Your task to perform on an android device: move a message to another label in the gmail app Image 0: 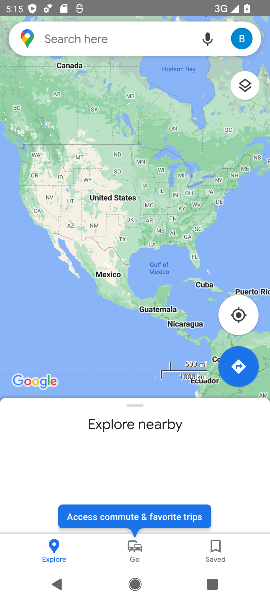
Step 0: press home button
Your task to perform on an android device: move a message to another label in the gmail app Image 1: 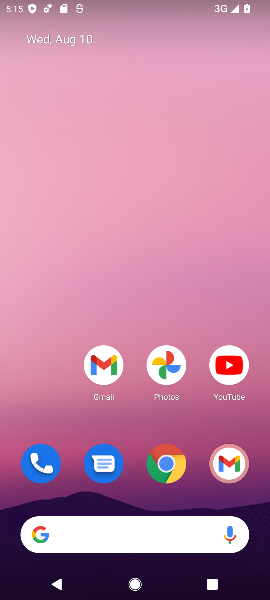
Step 1: click (102, 366)
Your task to perform on an android device: move a message to another label in the gmail app Image 2: 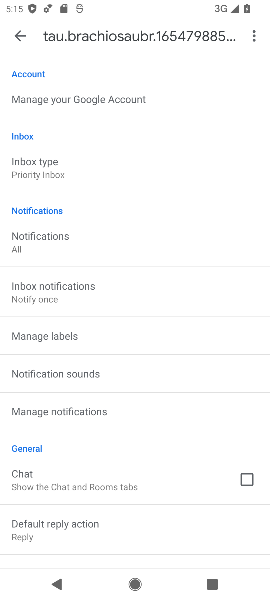
Step 2: click (17, 32)
Your task to perform on an android device: move a message to another label in the gmail app Image 3: 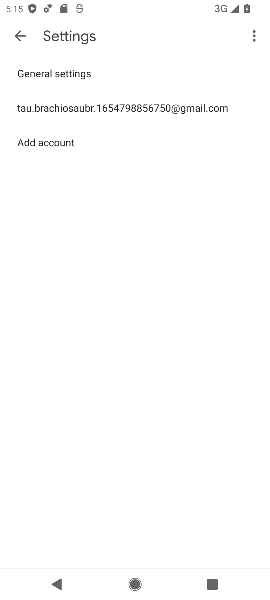
Step 3: click (17, 32)
Your task to perform on an android device: move a message to another label in the gmail app Image 4: 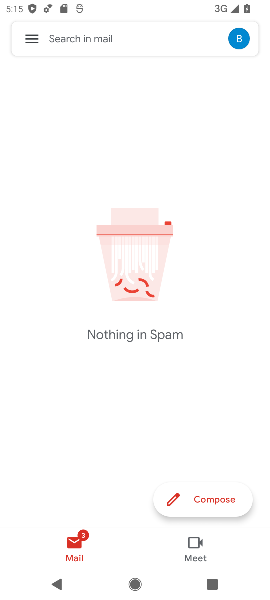
Step 4: click (26, 25)
Your task to perform on an android device: move a message to another label in the gmail app Image 5: 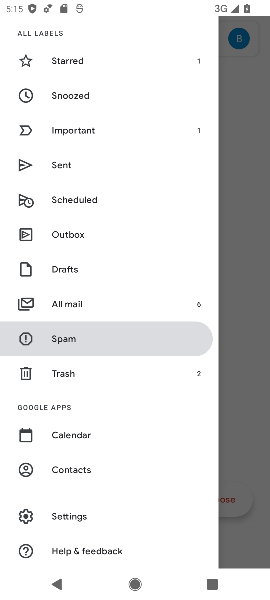
Step 5: click (69, 302)
Your task to perform on an android device: move a message to another label in the gmail app Image 6: 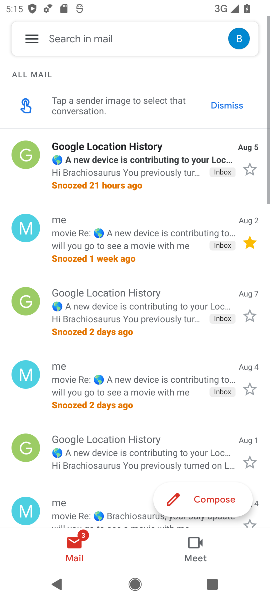
Step 6: click (133, 154)
Your task to perform on an android device: move a message to another label in the gmail app Image 7: 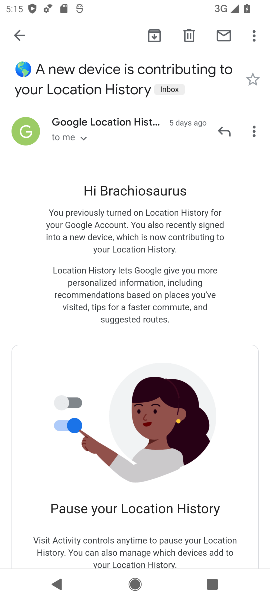
Step 7: click (255, 28)
Your task to perform on an android device: move a message to another label in the gmail app Image 8: 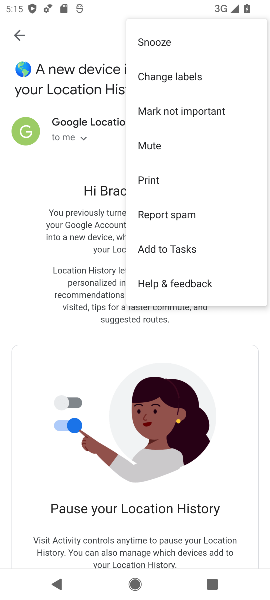
Step 8: click (191, 70)
Your task to perform on an android device: move a message to another label in the gmail app Image 9: 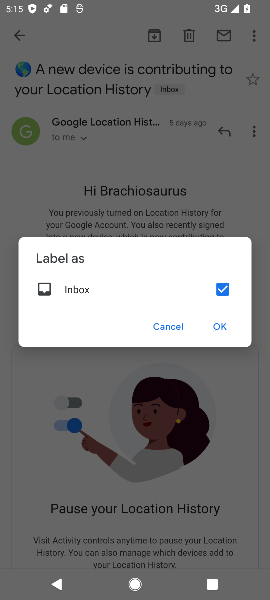
Step 9: click (220, 326)
Your task to perform on an android device: move a message to another label in the gmail app Image 10: 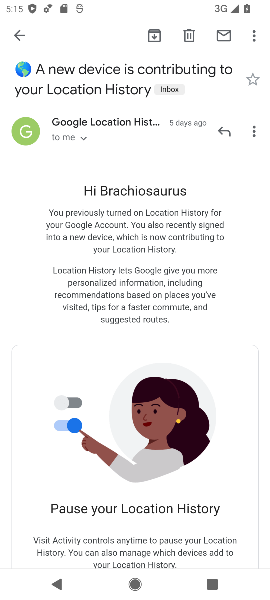
Step 10: task complete